Your task to perform on an android device: Open calendar and show me the second week of next month Image 0: 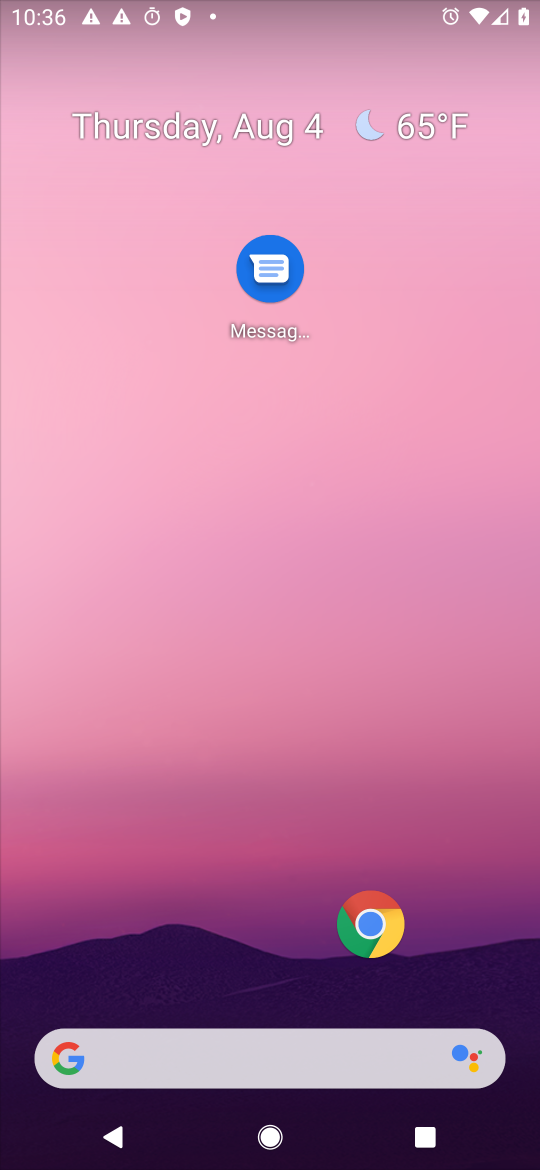
Step 0: click (339, 369)
Your task to perform on an android device: Open calendar and show me the second week of next month Image 1: 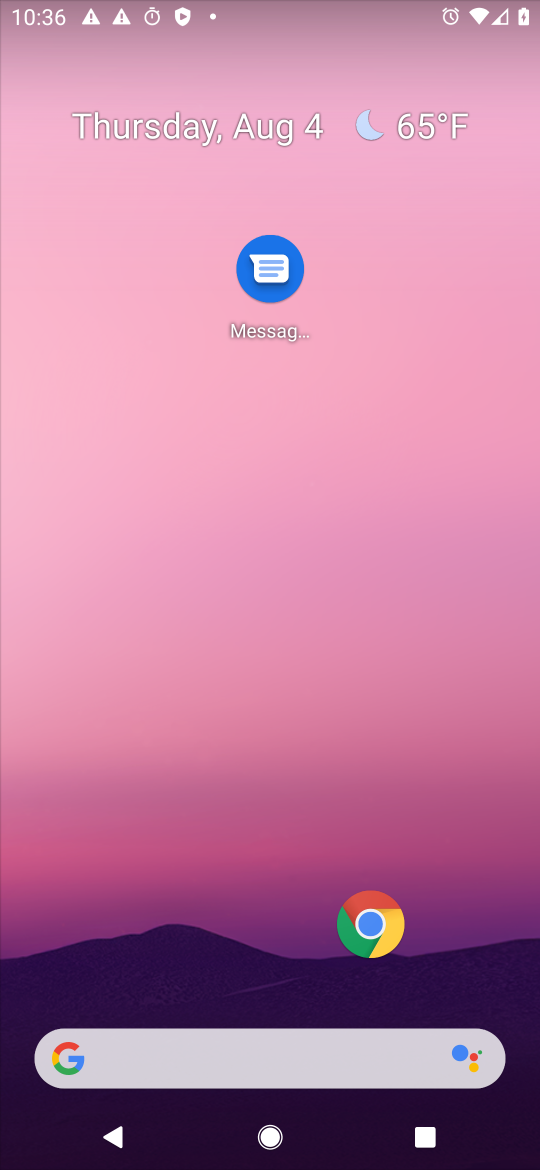
Step 1: drag from (240, 489) to (240, 99)
Your task to perform on an android device: Open calendar and show me the second week of next month Image 2: 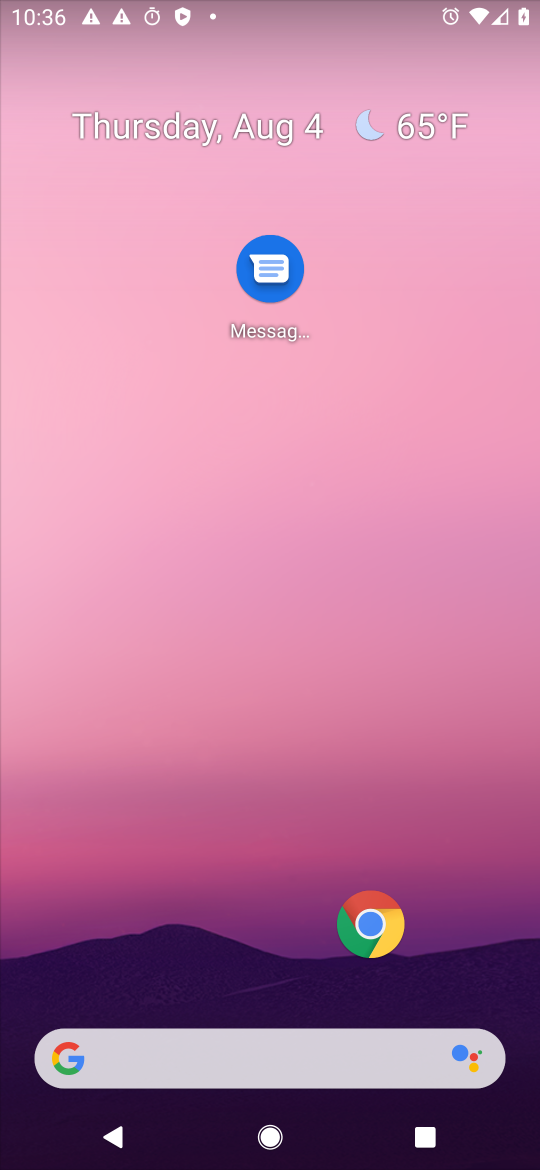
Step 2: drag from (263, 933) to (262, 208)
Your task to perform on an android device: Open calendar and show me the second week of next month Image 3: 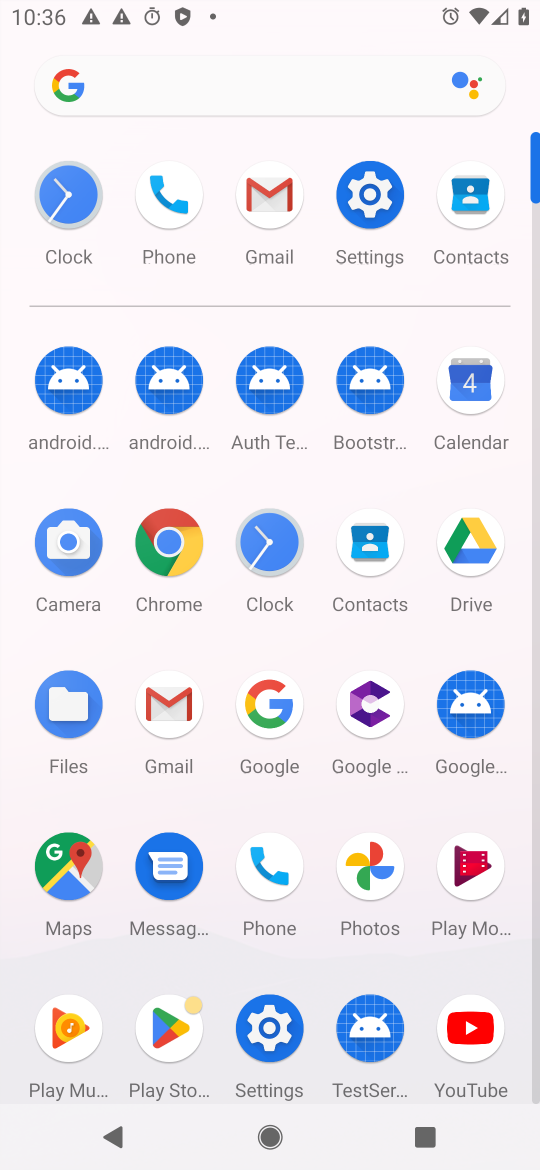
Step 3: drag from (315, 928) to (348, 353)
Your task to perform on an android device: Open calendar and show me the second week of next month Image 4: 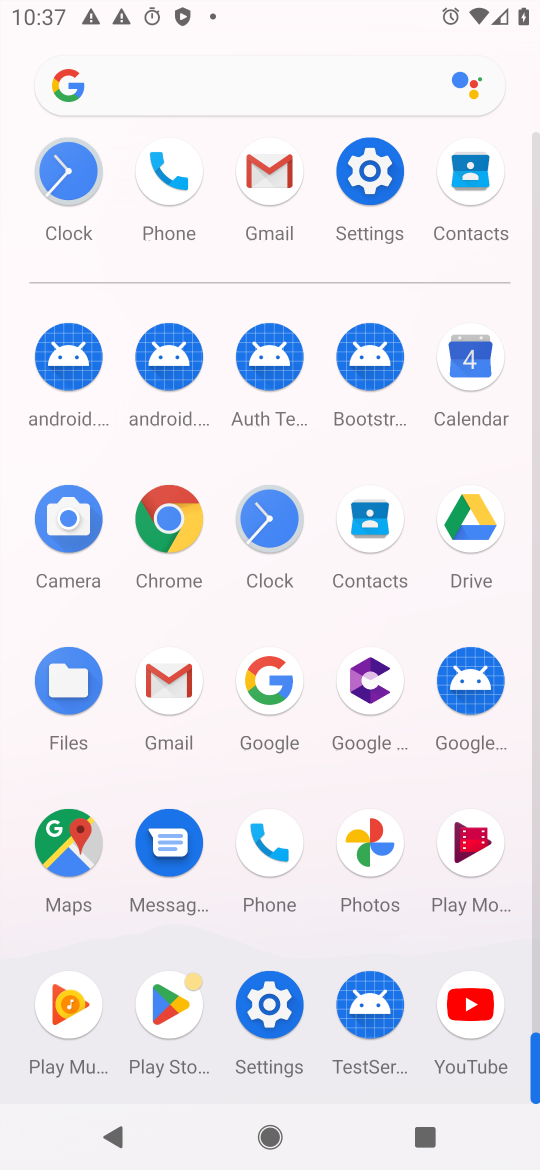
Step 4: click (465, 340)
Your task to perform on an android device: Open calendar and show me the second week of next month Image 5: 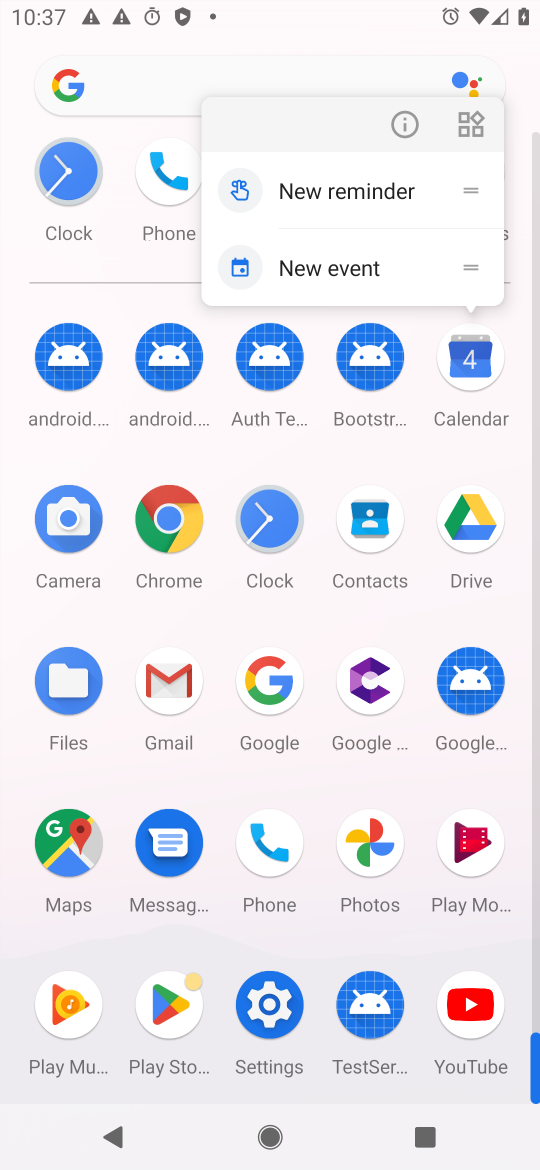
Step 5: click (406, 104)
Your task to perform on an android device: Open calendar and show me the second week of next month Image 6: 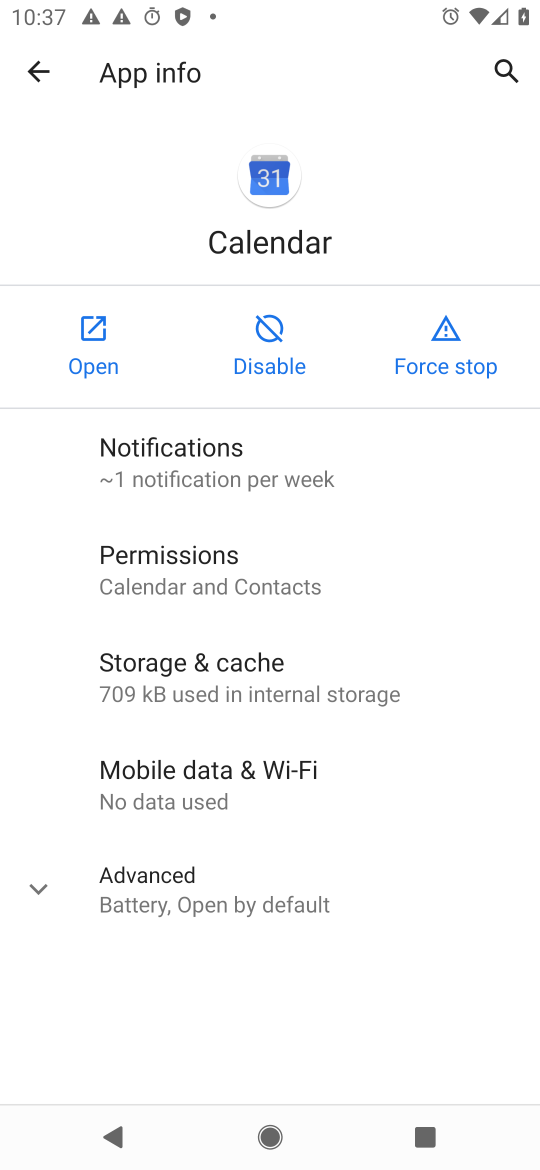
Step 6: click (86, 336)
Your task to perform on an android device: Open calendar and show me the second week of next month Image 7: 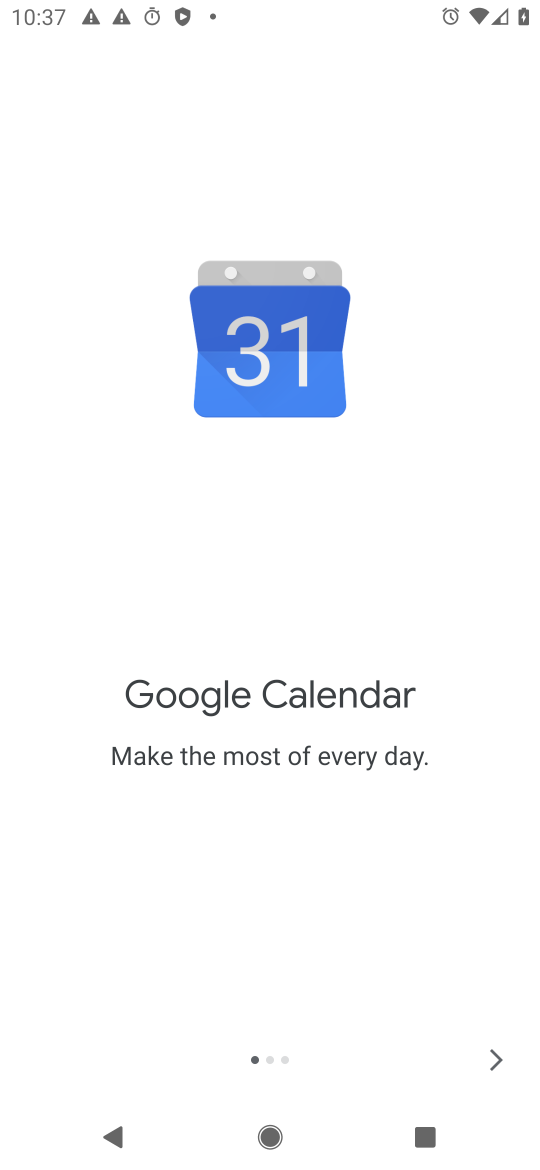
Step 7: click (482, 1044)
Your task to perform on an android device: Open calendar and show me the second week of next month Image 8: 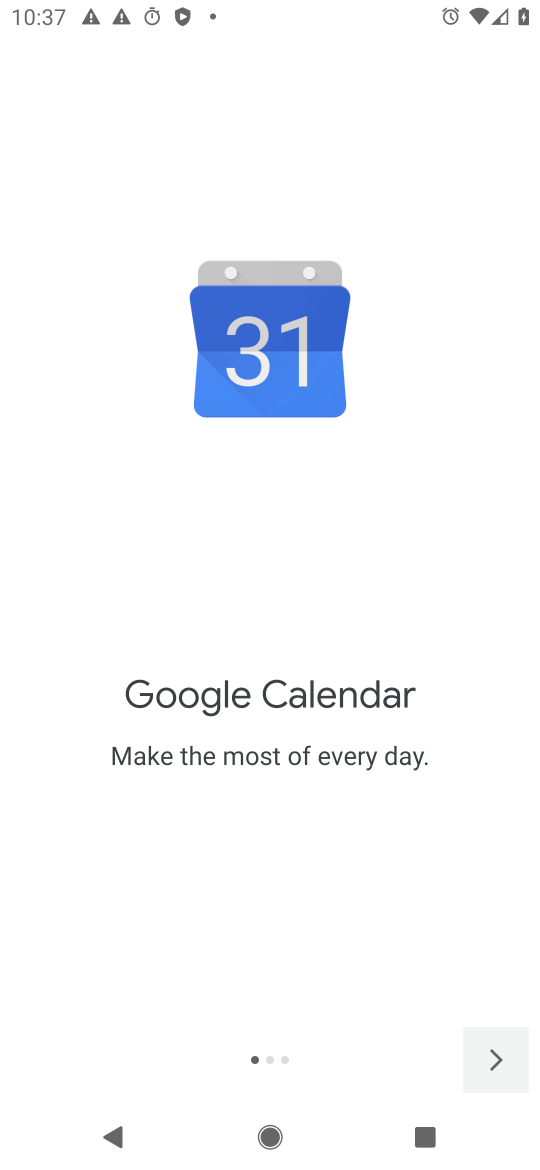
Step 8: click (481, 1046)
Your task to perform on an android device: Open calendar and show me the second week of next month Image 9: 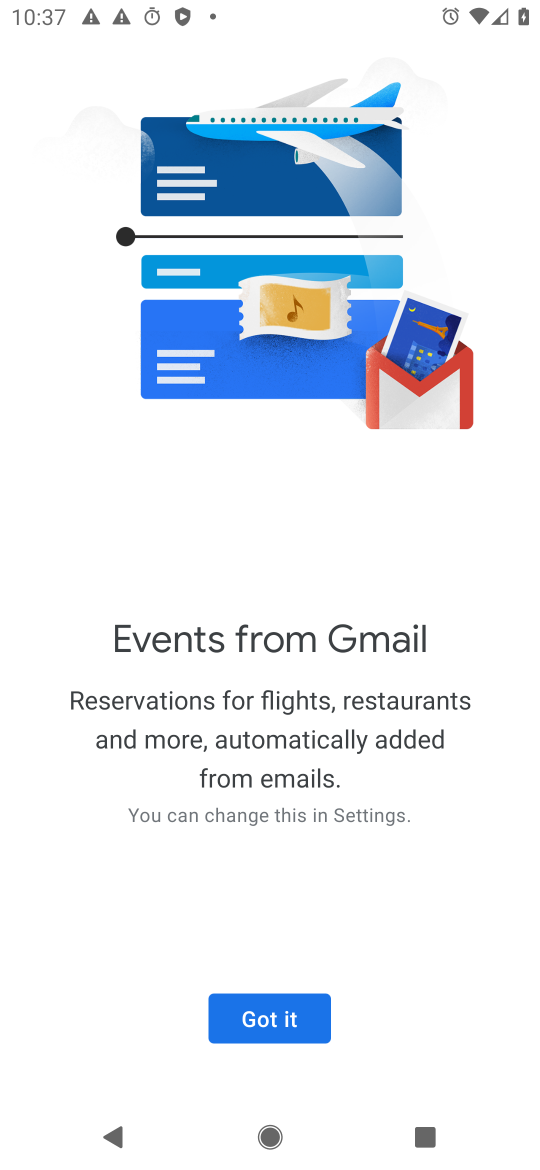
Step 9: drag from (502, 1058) to (279, 1015)
Your task to perform on an android device: Open calendar and show me the second week of next month Image 10: 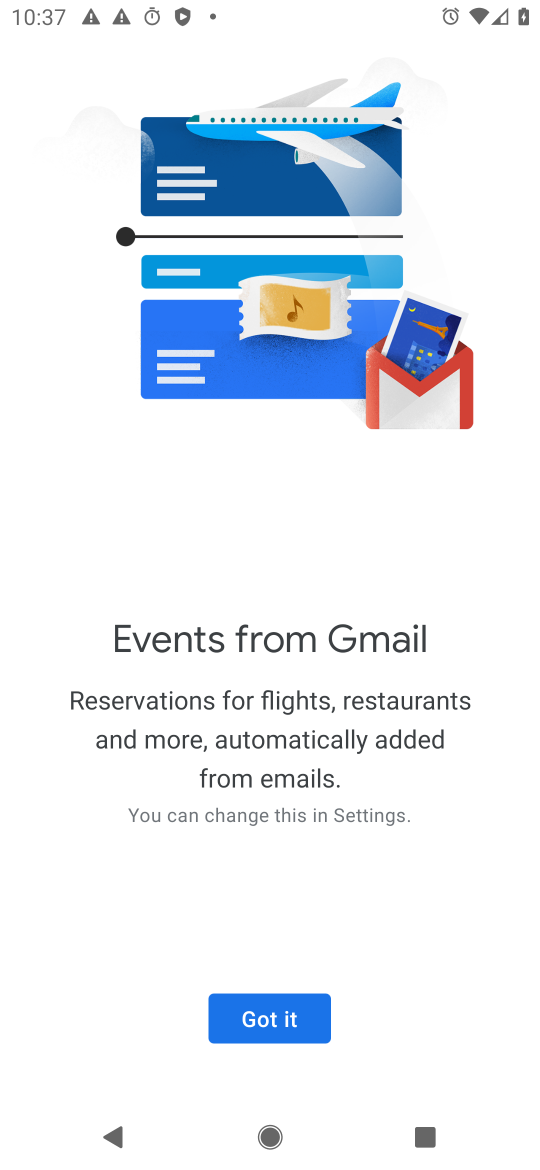
Step 10: click (245, 1033)
Your task to perform on an android device: Open calendar and show me the second week of next month Image 11: 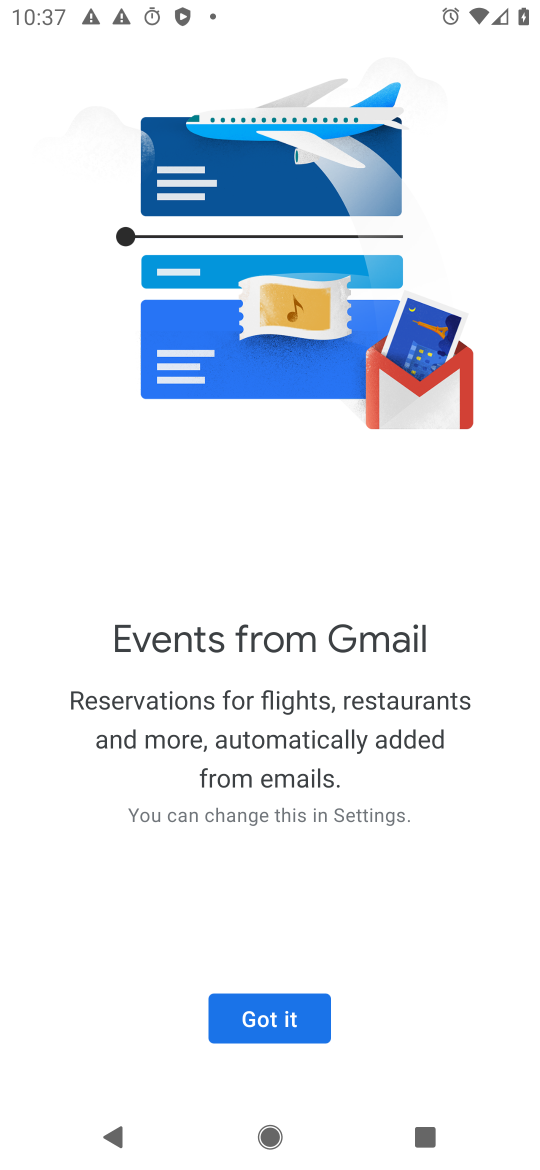
Step 11: drag from (440, 391) to (303, 614)
Your task to perform on an android device: Open calendar and show me the second week of next month Image 12: 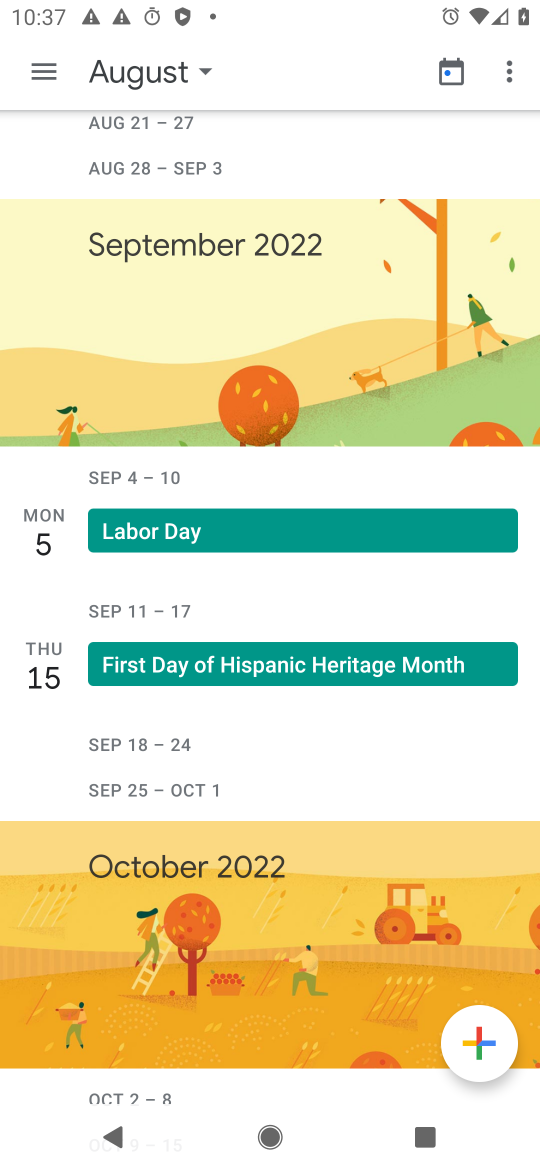
Step 12: drag from (292, 885) to (427, 1145)
Your task to perform on an android device: Open calendar and show me the second week of next month Image 13: 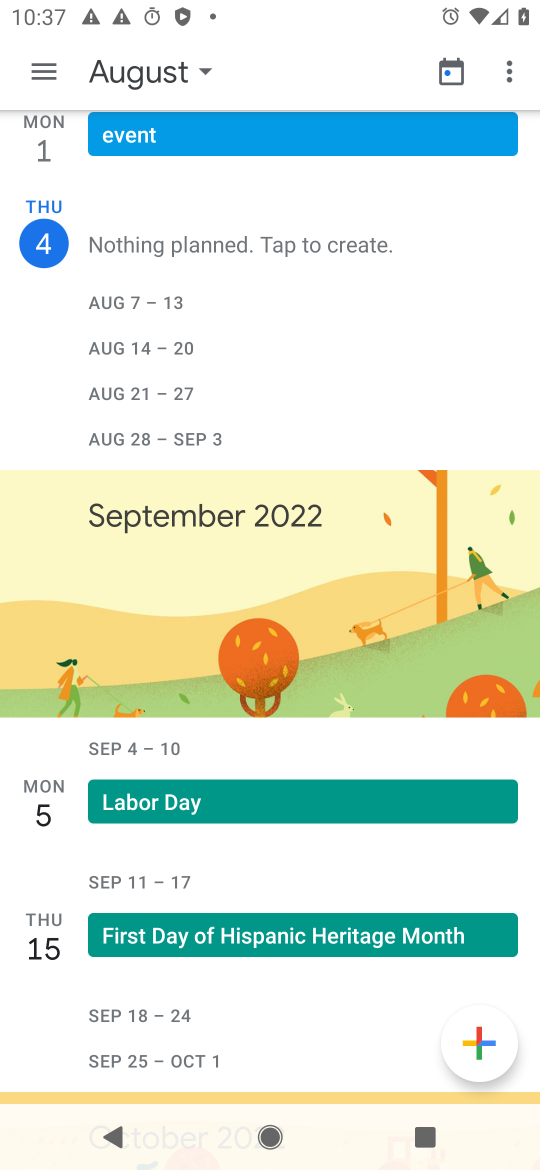
Step 13: drag from (265, 561) to (265, 703)
Your task to perform on an android device: Open calendar and show me the second week of next month Image 14: 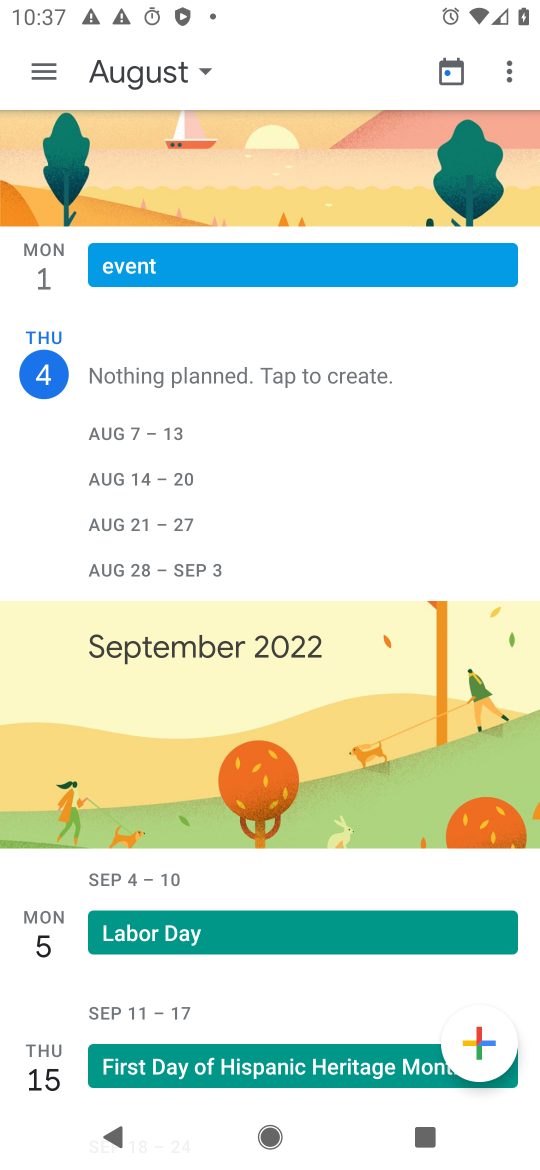
Step 14: drag from (306, 560) to (319, 1111)
Your task to perform on an android device: Open calendar and show me the second week of next month Image 15: 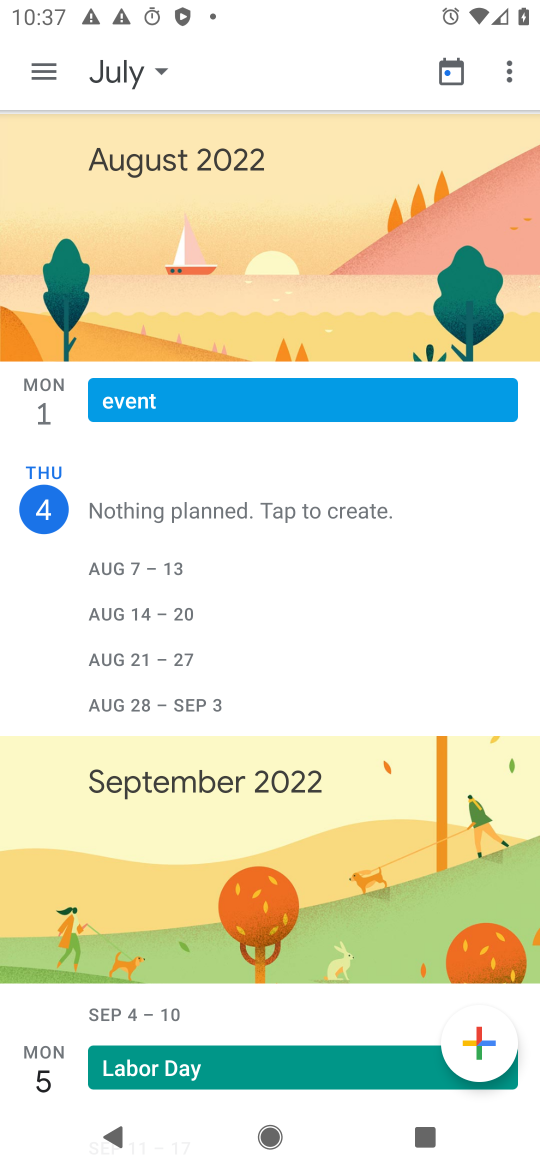
Step 15: drag from (304, 949) to (321, 261)
Your task to perform on an android device: Open calendar and show me the second week of next month Image 16: 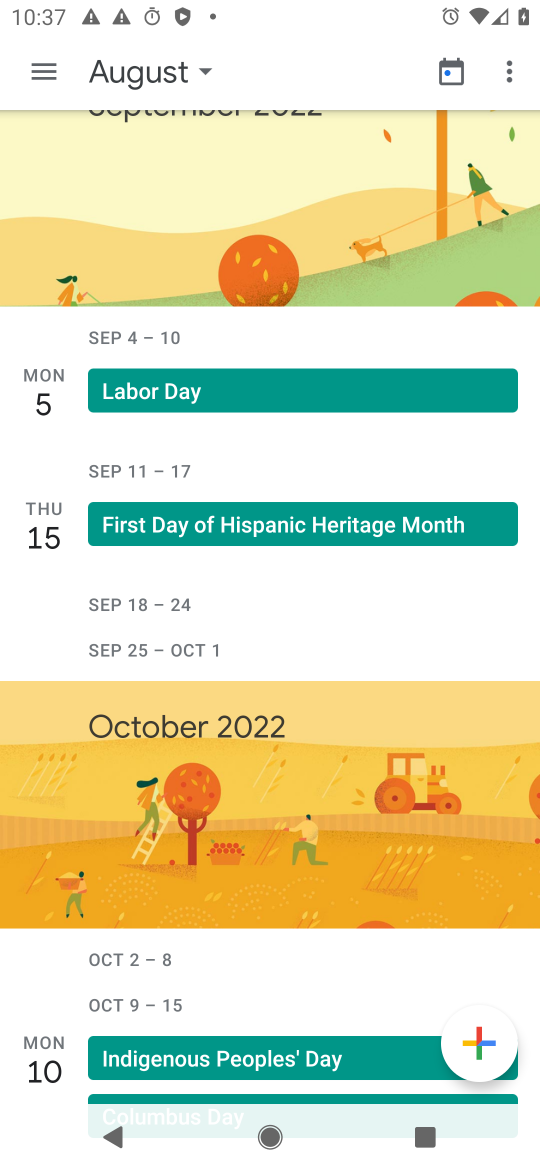
Step 16: drag from (239, 996) to (300, 588)
Your task to perform on an android device: Open calendar and show me the second week of next month Image 17: 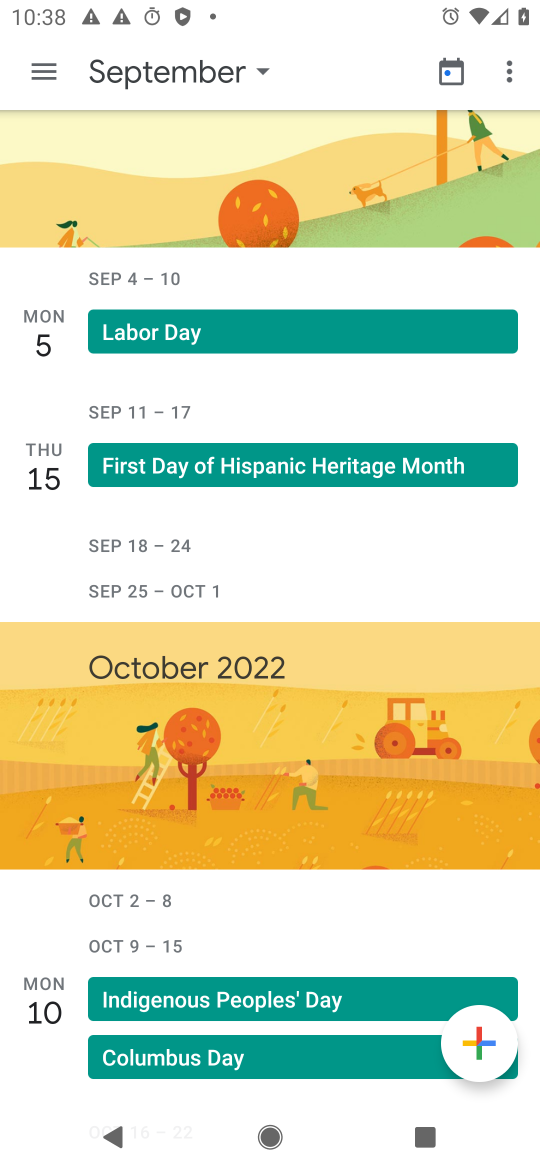
Step 17: click (191, 75)
Your task to perform on an android device: Open calendar and show me the second week of next month Image 18: 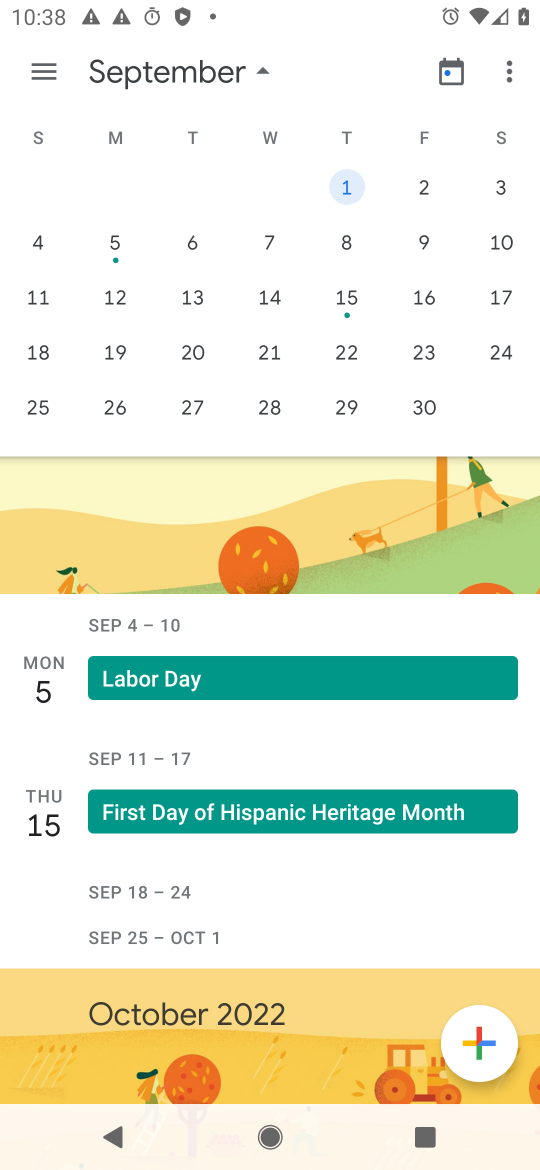
Step 18: click (343, 247)
Your task to perform on an android device: Open calendar and show me the second week of next month Image 19: 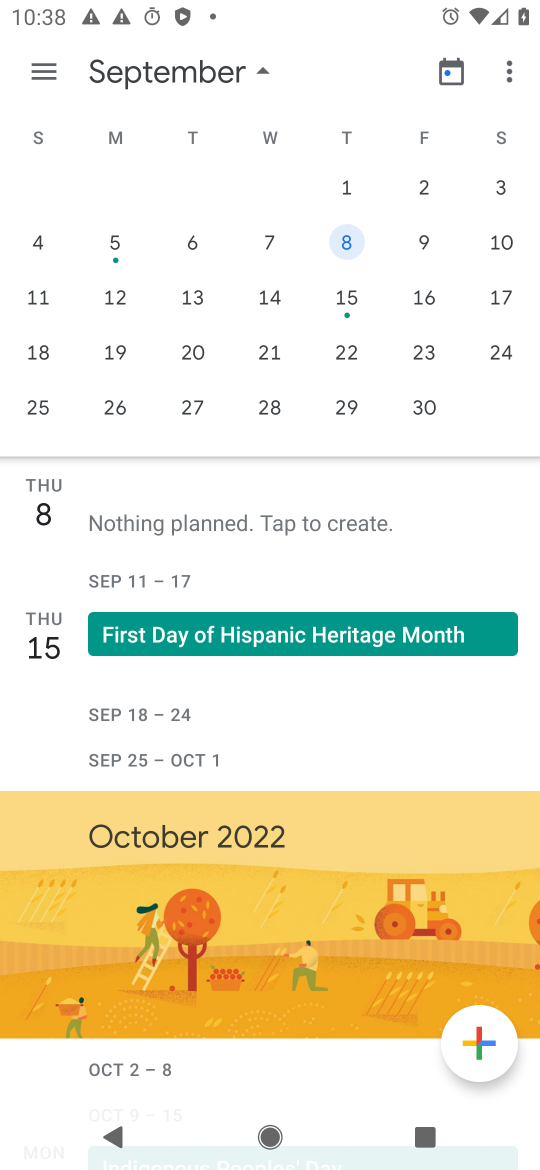
Step 19: task complete